Your task to perform on an android device: refresh tabs in the chrome app Image 0: 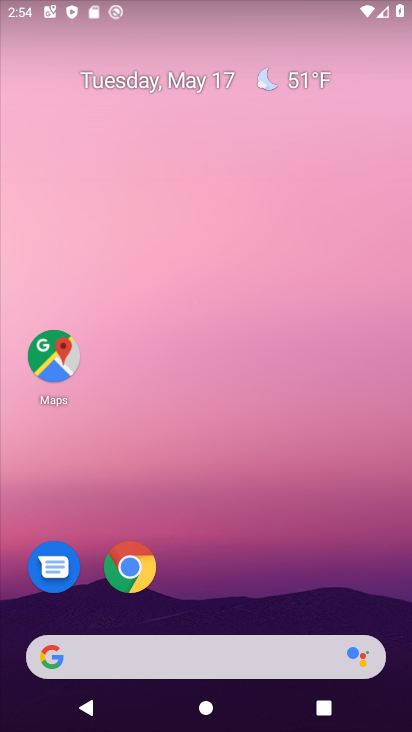
Step 0: click (143, 587)
Your task to perform on an android device: refresh tabs in the chrome app Image 1: 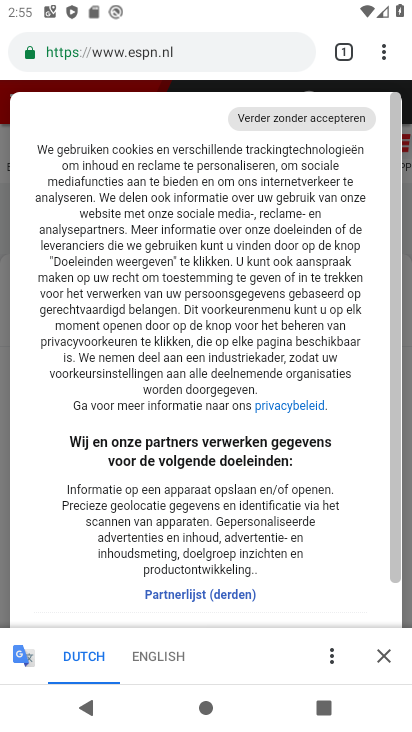
Step 1: drag from (385, 304) to (367, 367)
Your task to perform on an android device: refresh tabs in the chrome app Image 2: 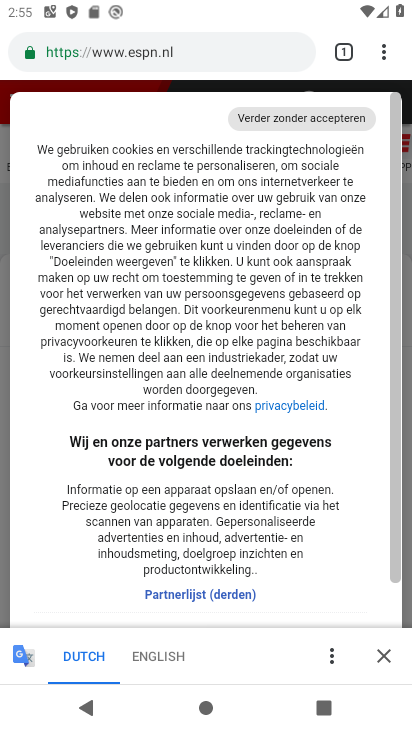
Step 2: click (349, 371)
Your task to perform on an android device: refresh tabs in the chrome app Image 3: 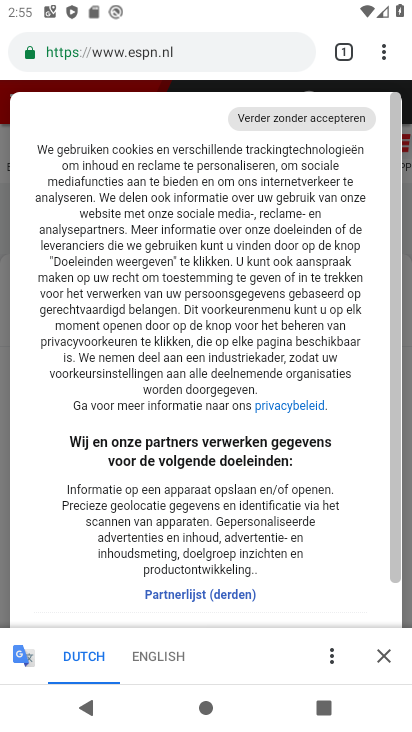
Step 3: click (389, 50)
Your task to perform on an android device: refresh tabs in the chrome app Image 4: 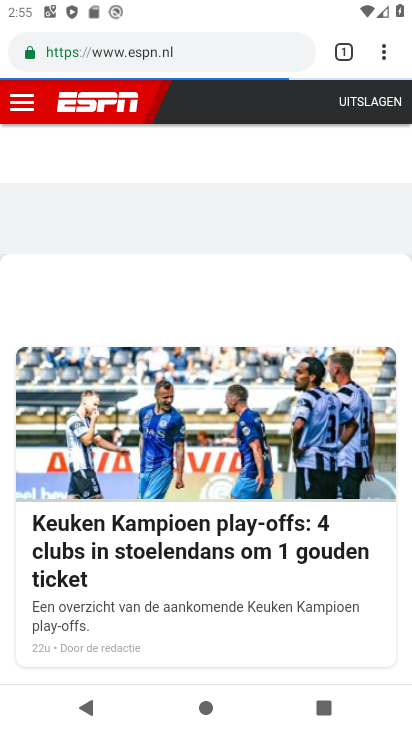
Step 4: task complete